Your task to perform on an android device: turn pop-ups on in chrome Image 0: 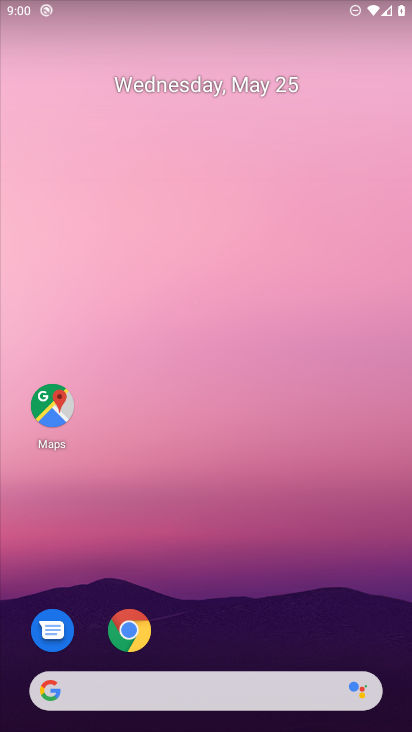
Step 0: click (134, 634)
Your task to perform on an android device: turn pop-ups on in chrome Image 1: 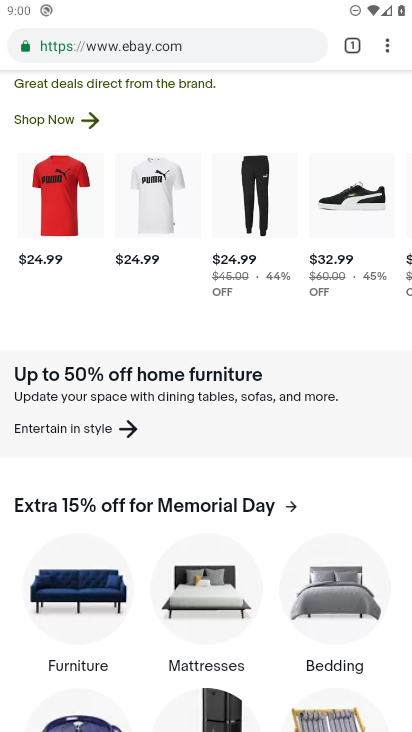
Step 1: click (384, 47)
Your task to perform on an android device: turn pop-ups on in chrome Image 2: 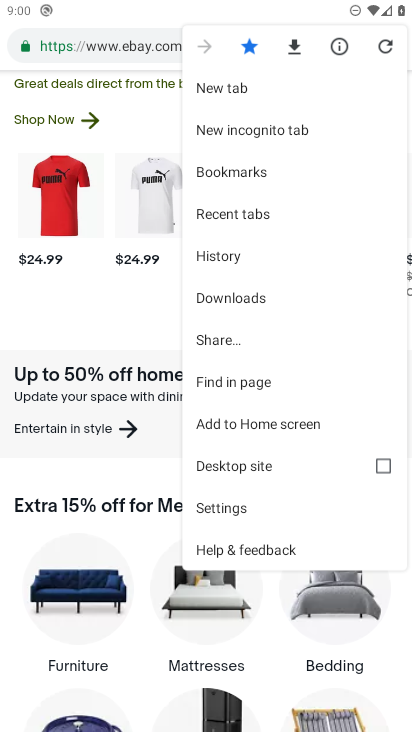
Step 2: click (238, 508)
Your task to perform on an android device: turn pop-ups on in chrome Image 3: 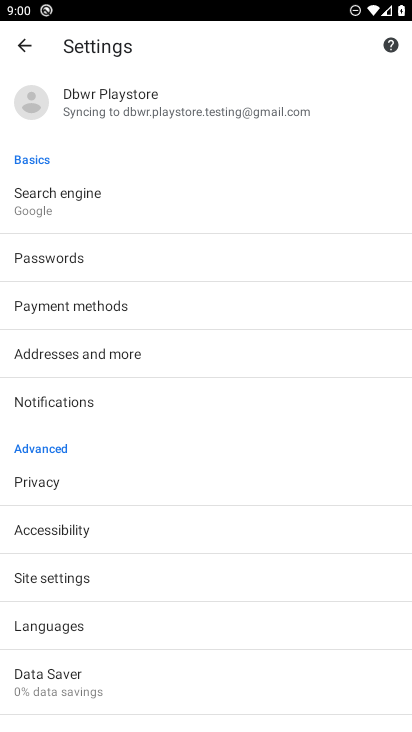
Step 3: click (48, 577)
Your task to perform on an android device: turn pop-ups on in chrome Image 4: 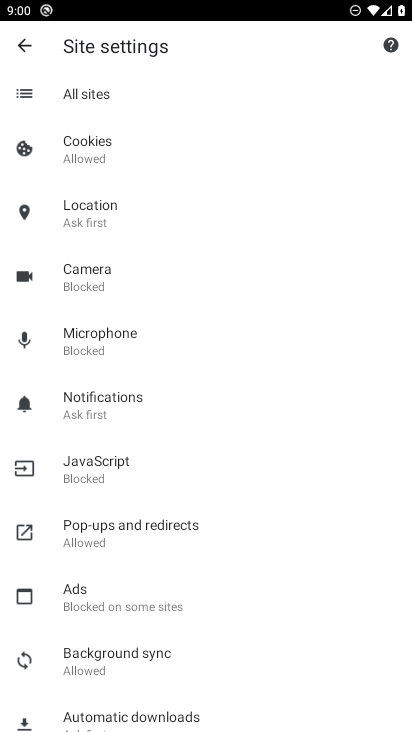
Step 4: click (98, 528)
Your task to perform on an android device: turn pop-ups on in chrome Image 5: 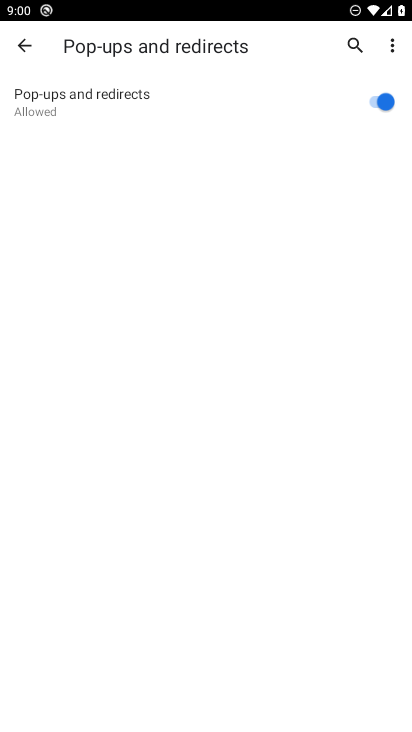
Step 5: task complete